Your task to perform on an android device: Open Google Maps Image 0: 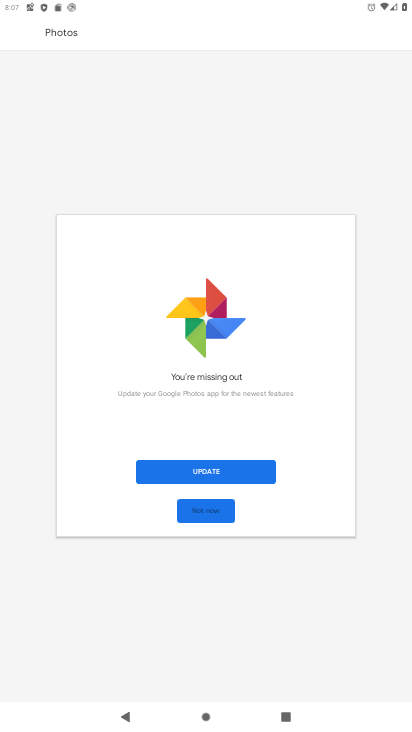
Step 0: press home button
Your task to perform on an android device: Open Google Maps Image 1: 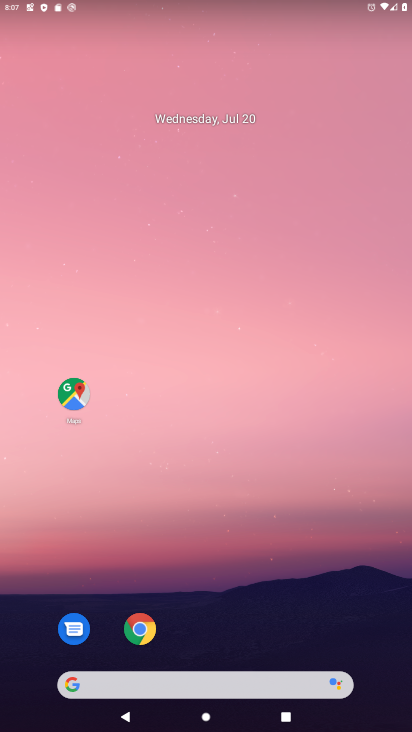
Step 1: click (68, 399)
Your task to perform on an android device: Open Google Maps Image 2: 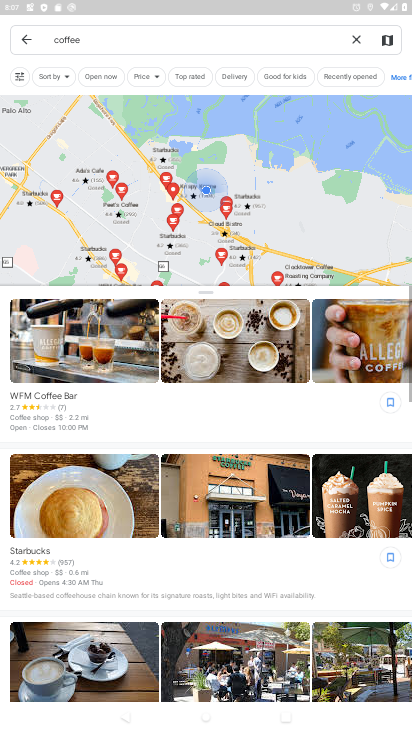
Step 2: task complete